Your task to perform on an android device: star an email in the gmail app Image 0: 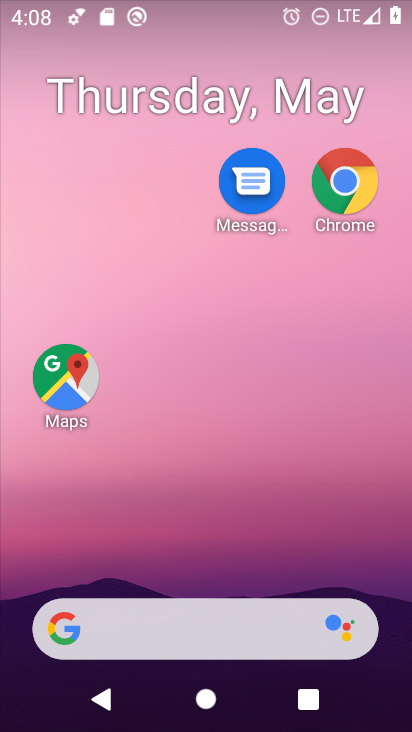
Step 0: drag from (257, 623) to (364, 6)
Your task to perform on an android device: star an email in the gmail app Image 1: 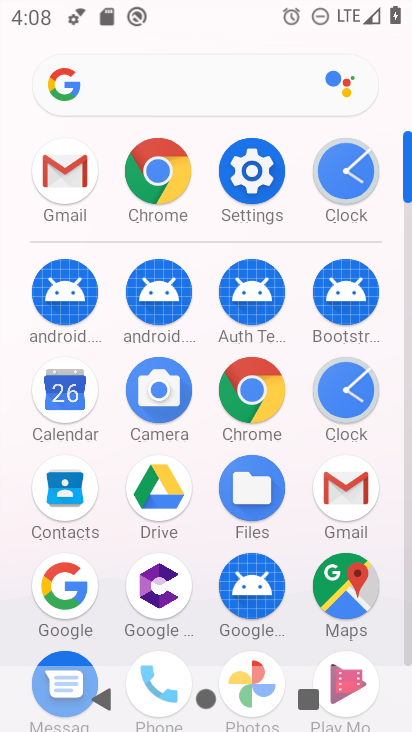
Step 1: click (346, 508)
Your task to perform on an android device: star an email in the gmail app Image 2: 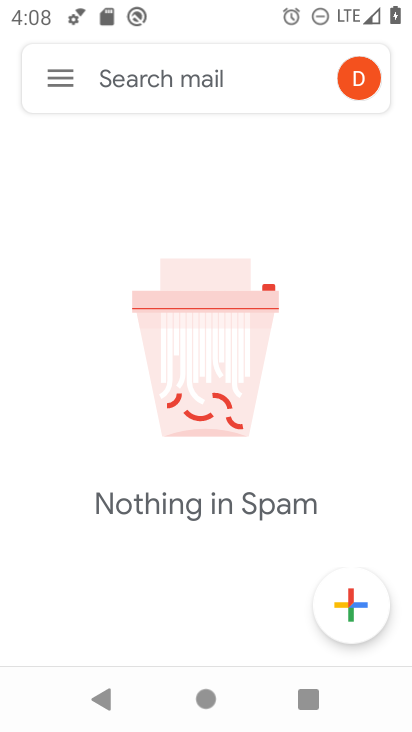
Step 2: click (55, 70)
Your task to perform on an android device: star an email in the gmail app Image 3: 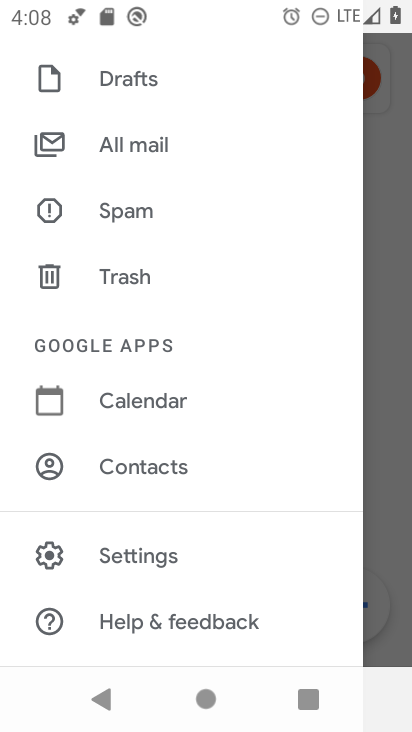
Step 3: drag from (131, 170) to (230, 731)
Your task to perform on an android device: star an email in the gmail app Image 4: 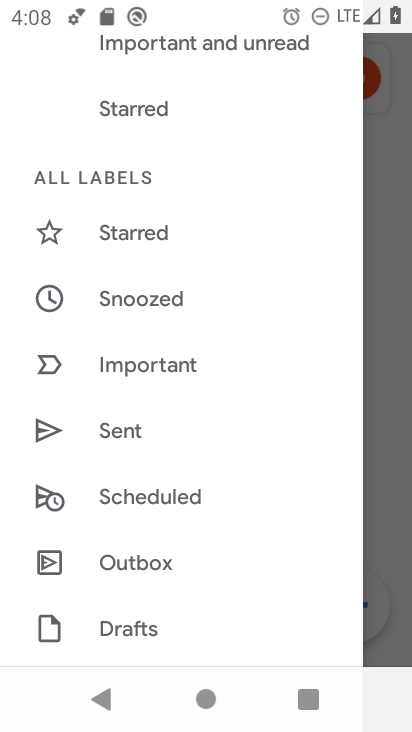
Step 4: click (146, 246)
Your task to perform on an android device: star an email in the gmail app Image 5: 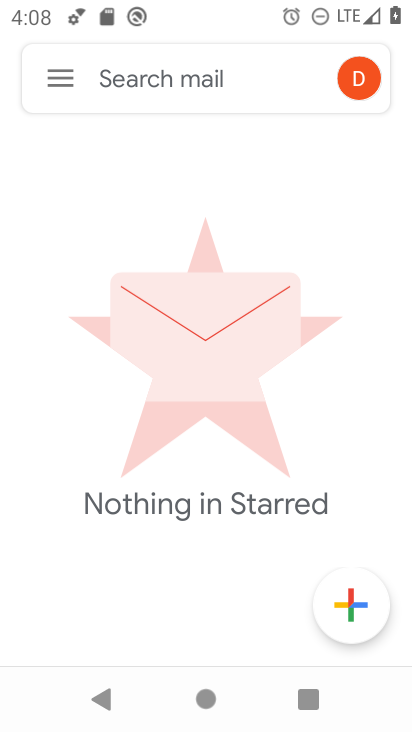
Step 5: task complete